Your task to perform on an android device: Show me productivity apps on the Play Store Image 0: 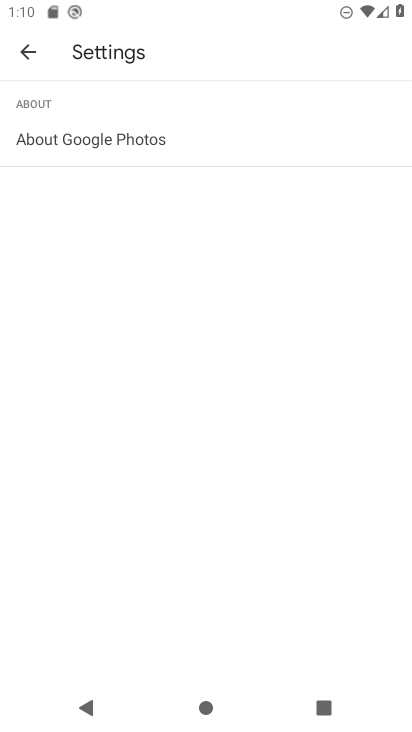
Step 0: press home button
Your task to perform on an android device: Show me productivity apps on the Play Store Image 1: 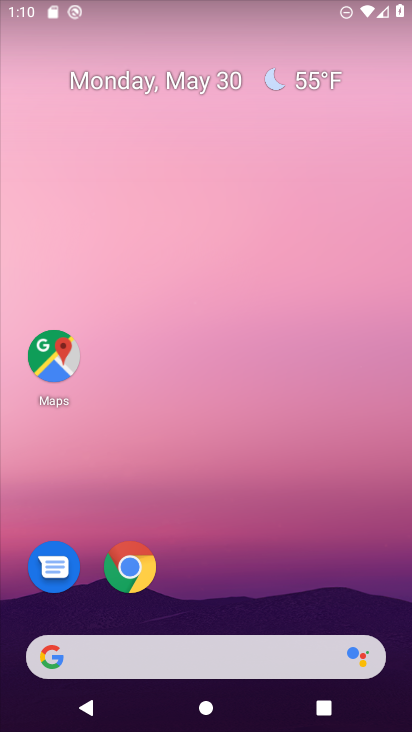
Step 1: drag from (218, 610) to (223, 106)
Your task to perform on an android device: Show me productivity apps on the Play Store Image 2: 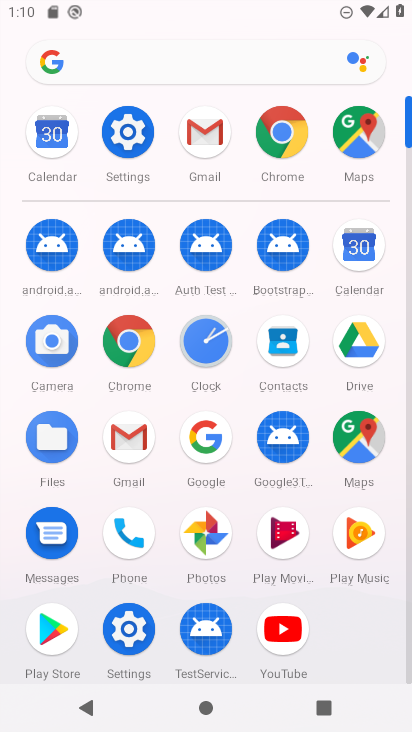
Step 2: click (49, 622)
Your task to perform on an android device: Show me productivity apps on the Play Store Image 3: 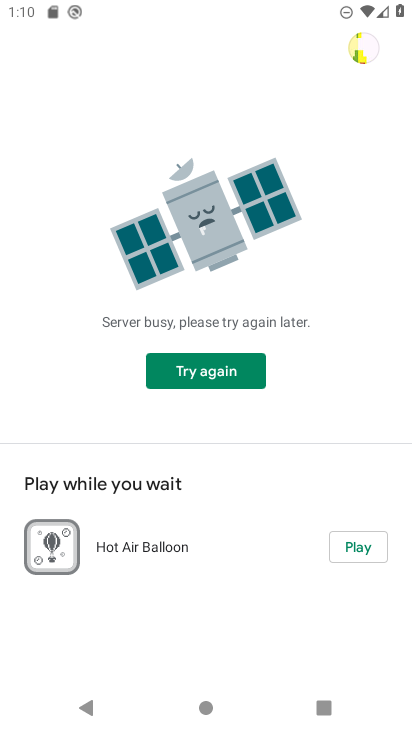
Step 3: click (205, 366)
Your task to perform on an android device: Show me productivity apps on the Play Store Image 4: 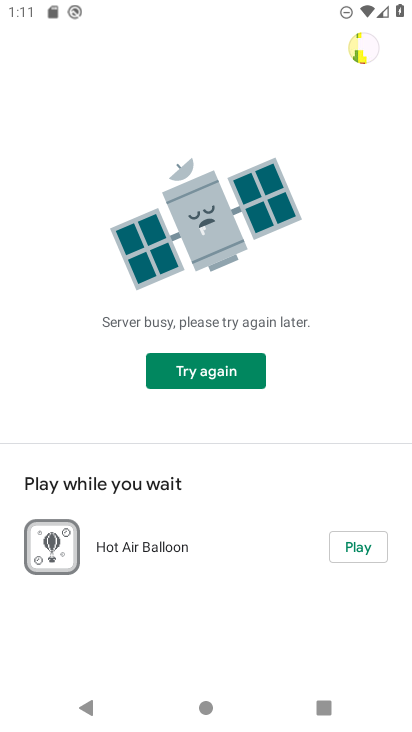
Step 4: task complete